Your task to perform on an android device: Go to CNN.com Image 0: 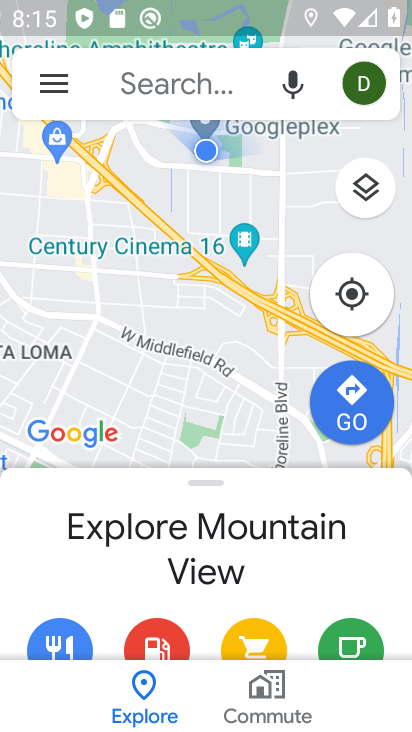
Step 0: press home button
Your task to perform on an android device: Go to CNN.com Image 1: 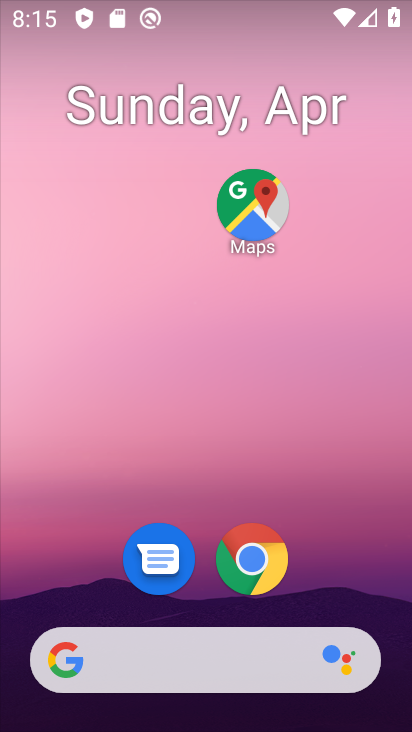
Step 1: click (261, 544)
Your task to perform on an android device: Go to CNN.com Image 2: 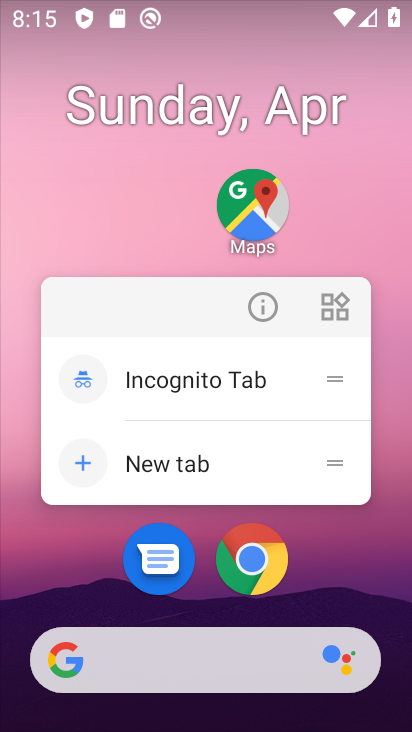
Step 2: click (257, 305)
Your task to perform on an android device: Go to CNN.com Image 3: 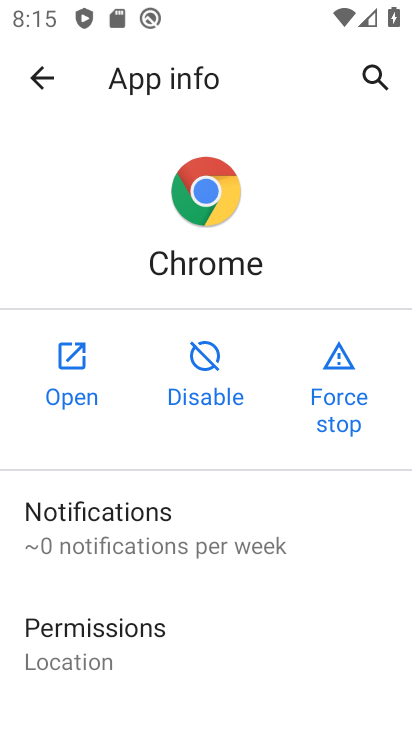
Step 3: click (84, 355)
Your task to perform on an android device: Go to CNN.com Image 4: 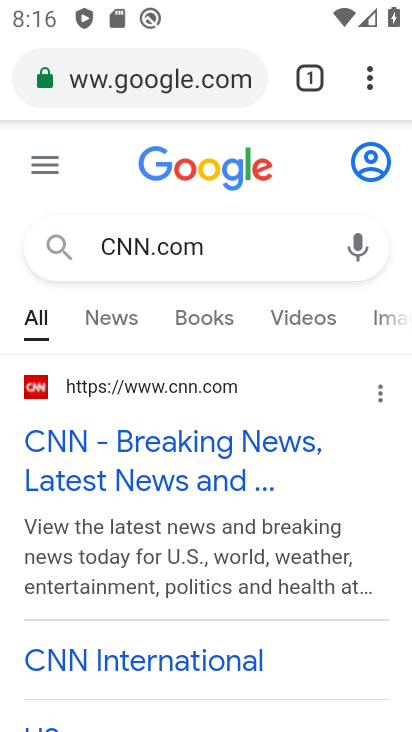
Step 4: task complete